Your task to perform on an android device: Open network settings Image 0: 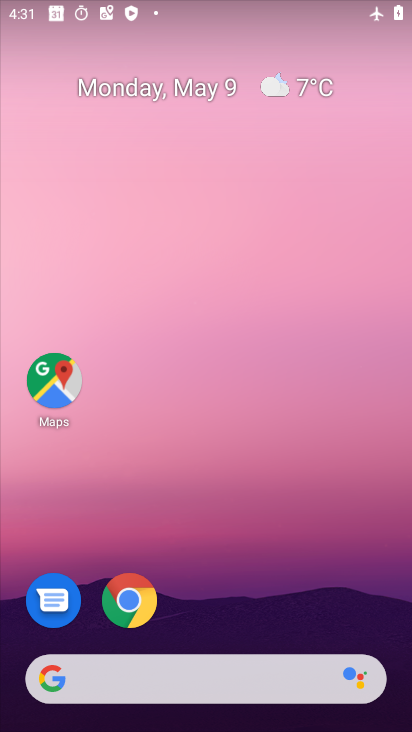
Step 0: drag from (249, 571) to (217, 138)
Your task to perform on an android device: Open network settings Image 1: 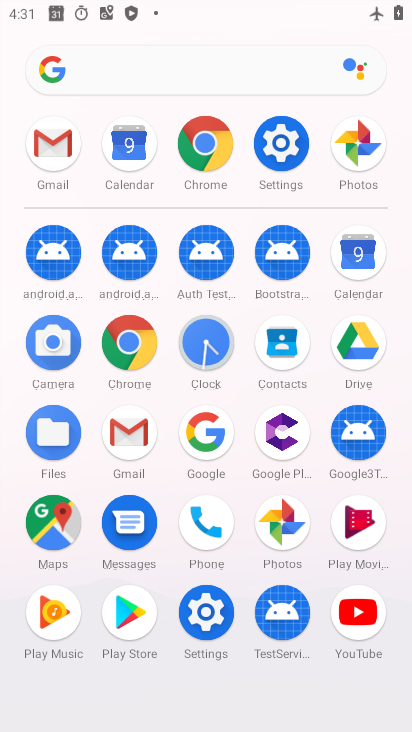
Step 1: click (283, 154)
Your task to perform on an android device: Open network settings Image 2: 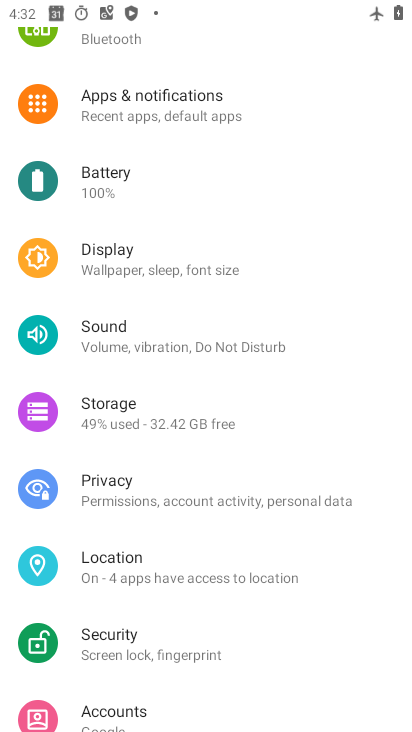
Step 2: drag from (218, 168) to (246, 642)
Your task to perform on an android device: Open network settings Image 3: 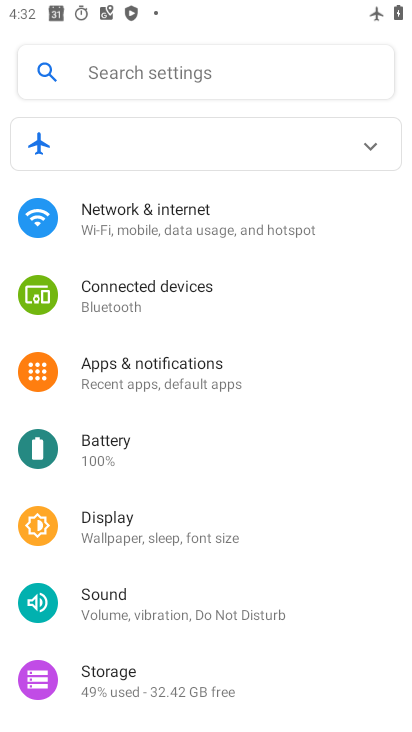
Step 3: click (168, 203)
Your task to perform on an android device: Open network settings Image 4: 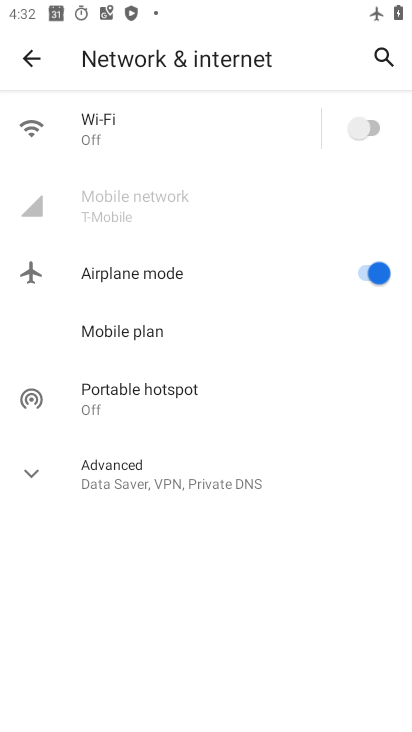
Step 4: task complete